Your task to perform on an android device: Open my contact list Image 0: 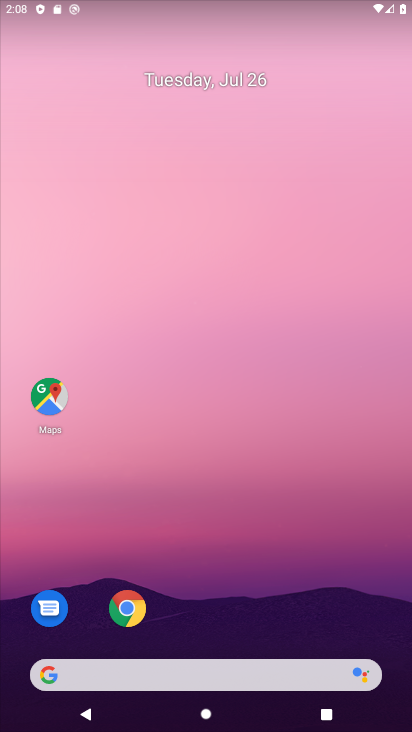
Step 0: drag from (279, 563) to (249, 205)
Your task to perform on an android device: Open my contact list Image 1: 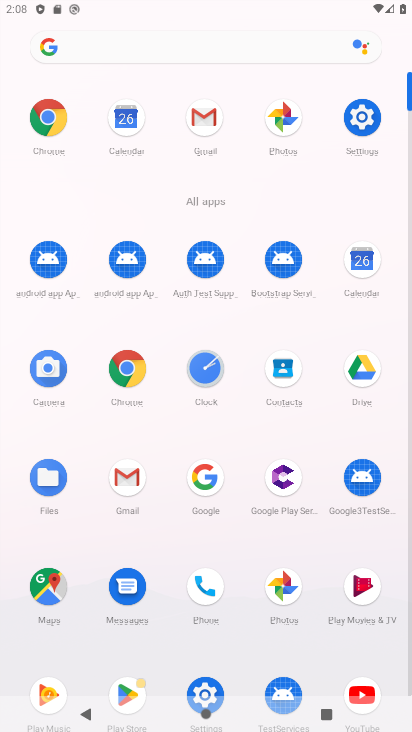
Step 1: click (282, 368)
Your task to perform on an android device: Open my contact list Image 2: 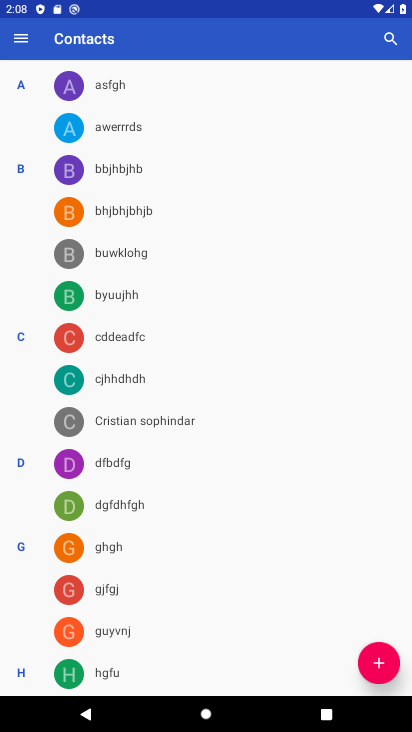
Step 2: task complete